Your task to perform on an android device: turn on javascript in the chrome app Image 0: 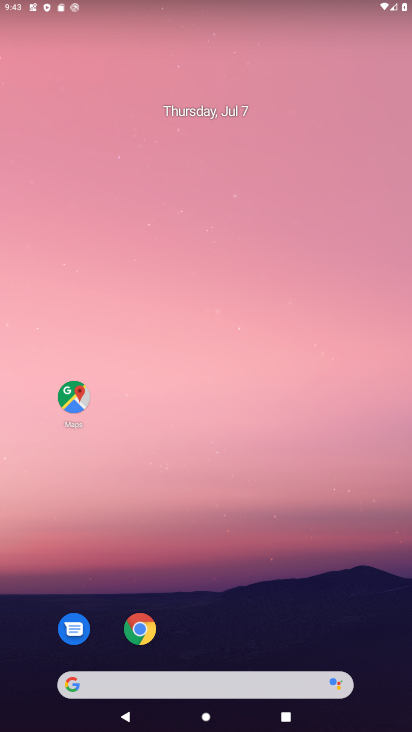
Step 0: click (150, 615)
Your task to perform on an android device: turn on javascript in the chrome app Image 1: 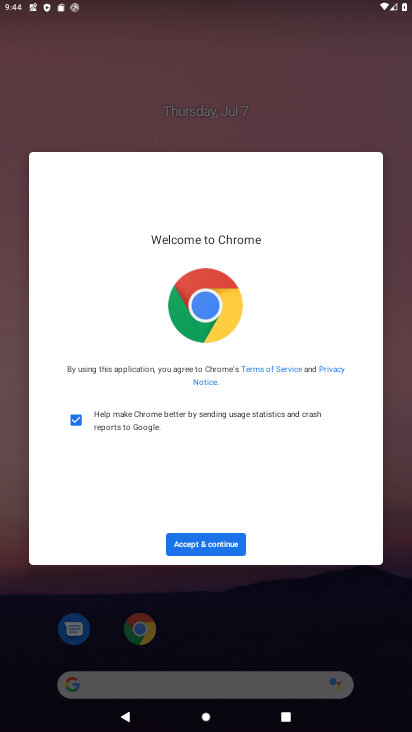
Step 1: click (224, 534)
Your task to perform on an android device: turn on javascript in the chrome app Image 2: 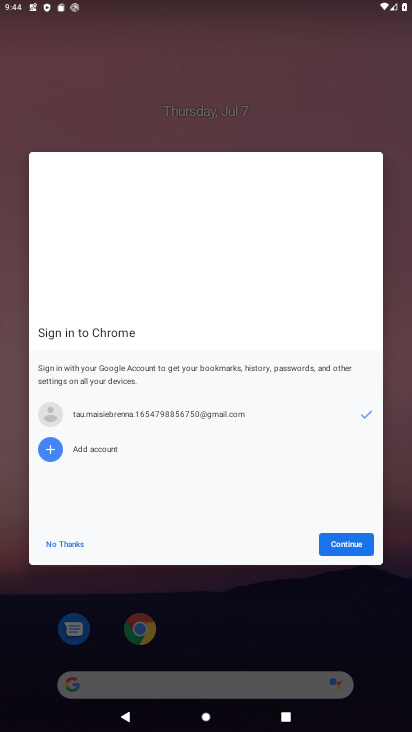
Step 2: click (330, 541)
Your task to perform on an android device: turn on javascript in the chrome app Image 3: 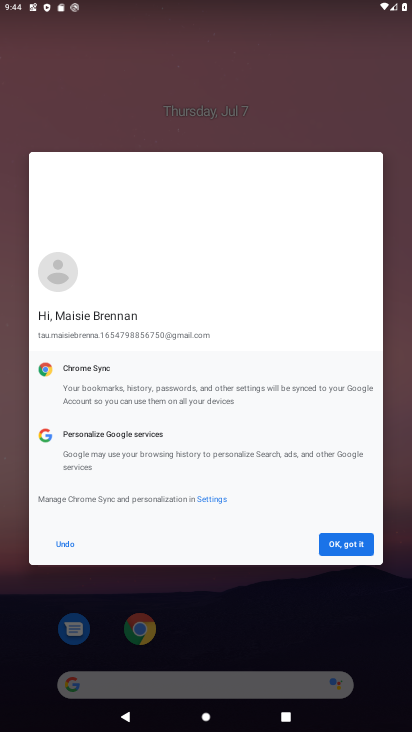
Step 3: click (340, 546)
Your task to perform on an android device: turn on javascript in the chrome app Image 4: 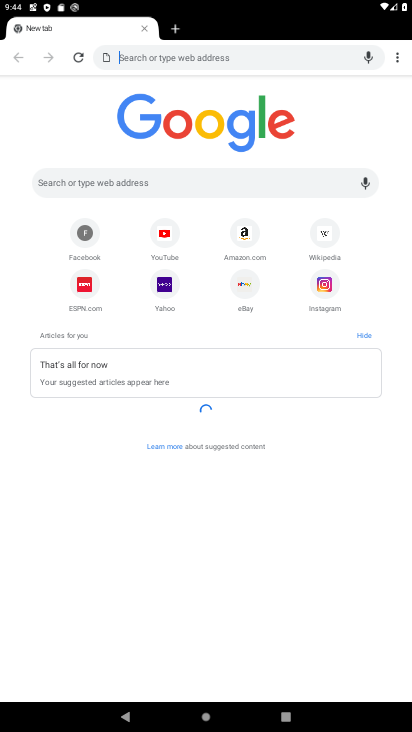
Step 4: click (394, 57)
Your task to perform on an android device: turn on javascript in the chrome app Image 5: 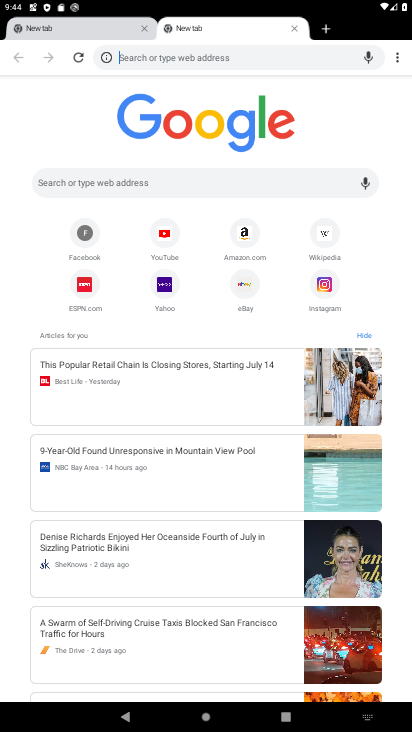
Step 5: click (394, 58)
Your task to perform on an android device: turn on javascript in the chrome app Image 6: 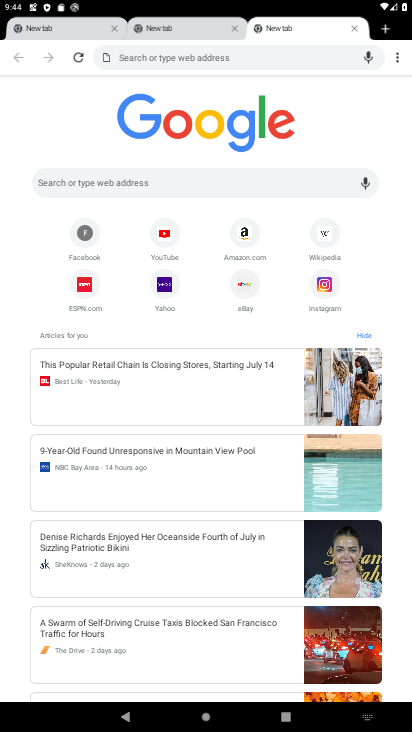
Step 6: click (391, 60)
Your task to perform on an android device: turn on javascript in the chrome app Image 7: 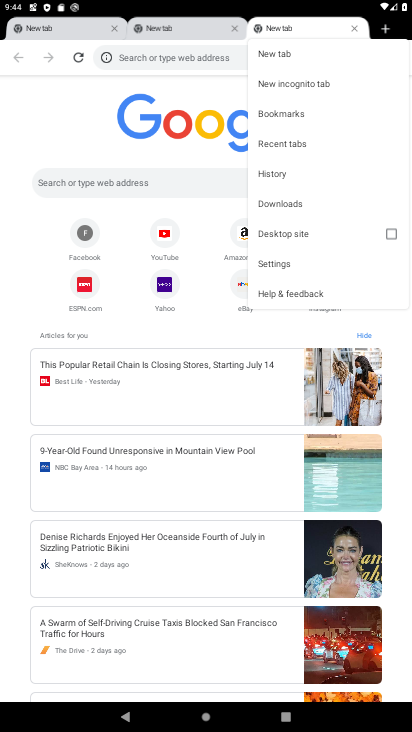
Step 7: click (269, 263)
Your task to perform on an android device: turn on javascript in the chrome app Image 8: 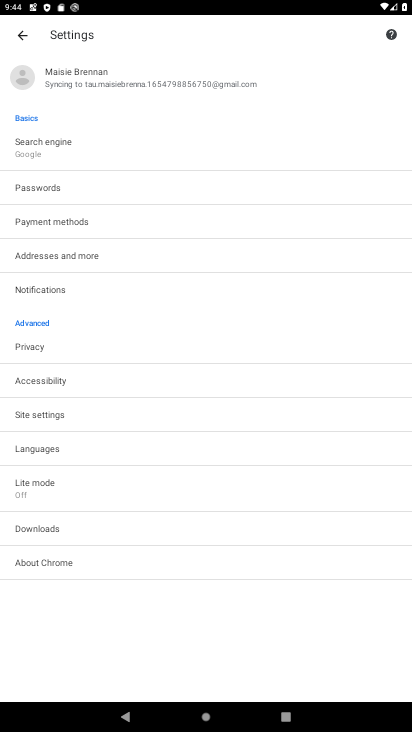
Step 8: click (50, 415)
Your task to perform on an android device: turn on javascript in the chrome app Image 9: 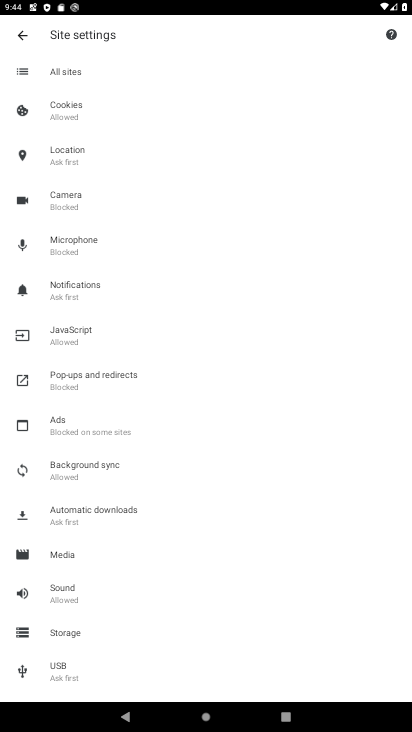
Step 9: click (68, 330)
Your task to perform on an android device: turn on javascript in the chrome app Image 10: 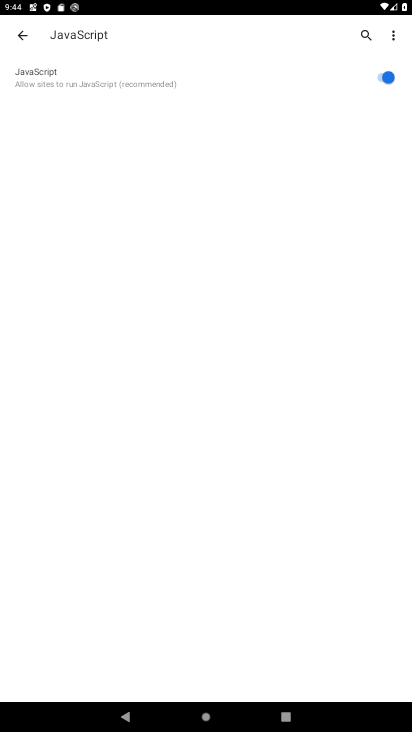
Step 10: task complete